Your task to perform on an android device: check google app version Image 0: 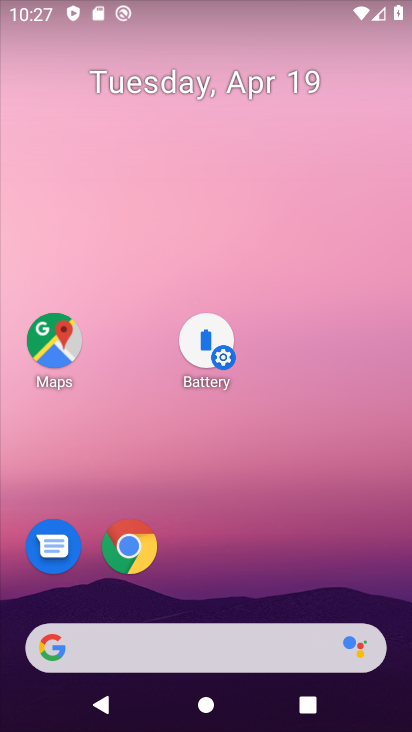
Step 0: drag from (215, 544) to (274, 114)
Your task to perform on an android device: check google app version Image 1: 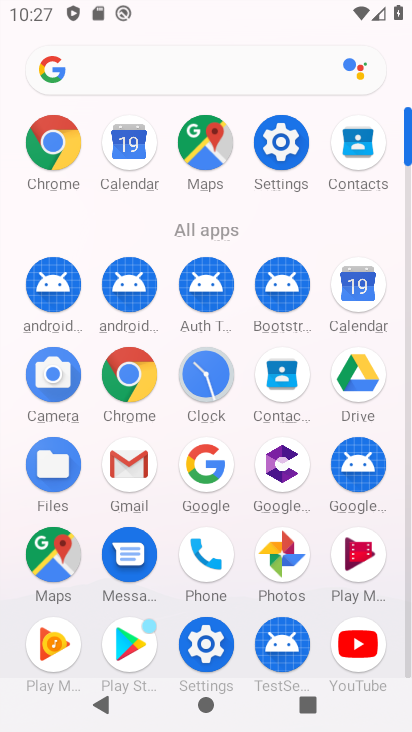
Step 1: click (204, 454)
Your task to perform on an android device: check google app version Image 2: 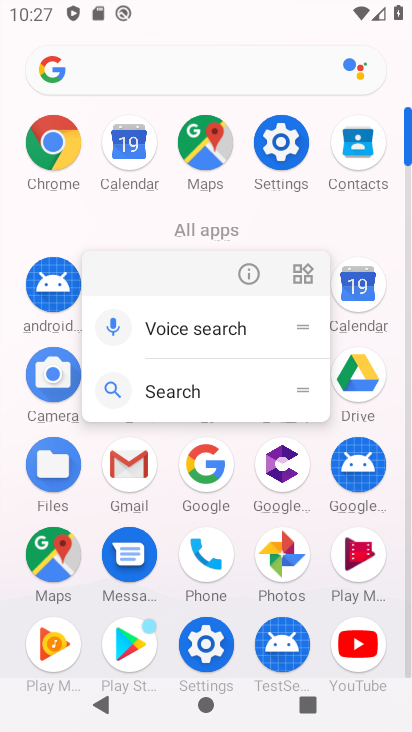
Step 2: click (238, 266)
Your task to perform on an android device: check google app version Image 3: 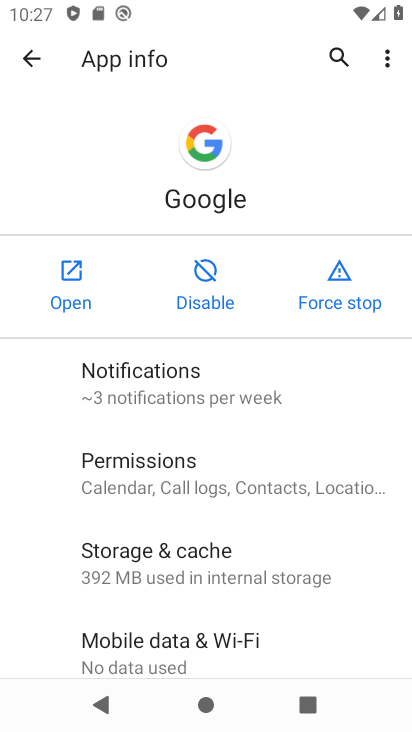
Step 3: drag from (217, 592) to (276, 66)
Your task to perform on an android device: check google app version Image 4: 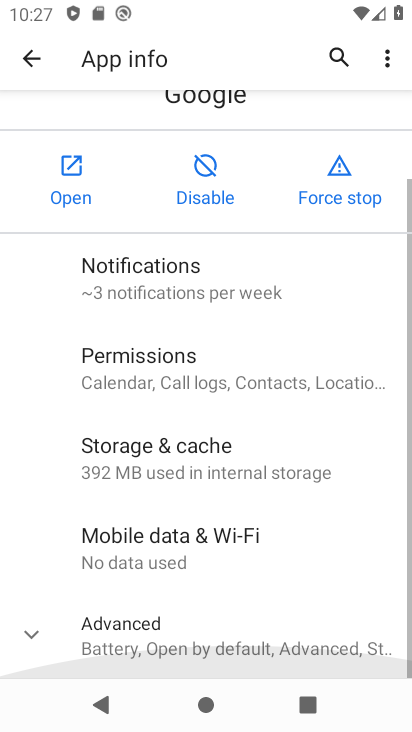
Step 4: drag from (139, 535) to (253, 178)
Your task to perform on an android device: check google app version Image 5: 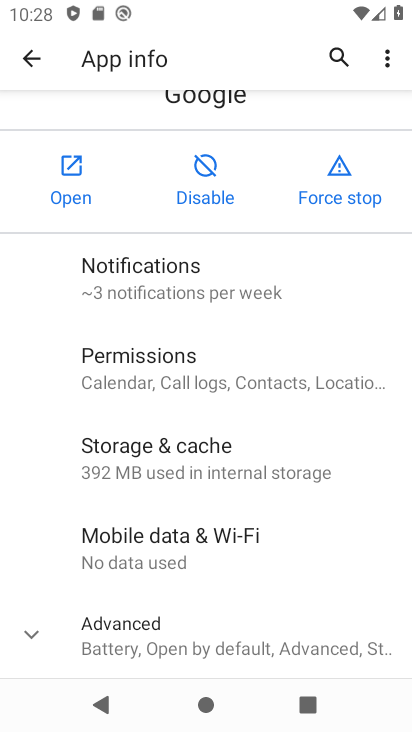
Step 5: drag from (203, 595) to (314, 107)
Your task to perform on an android device: check google app version Image 6: 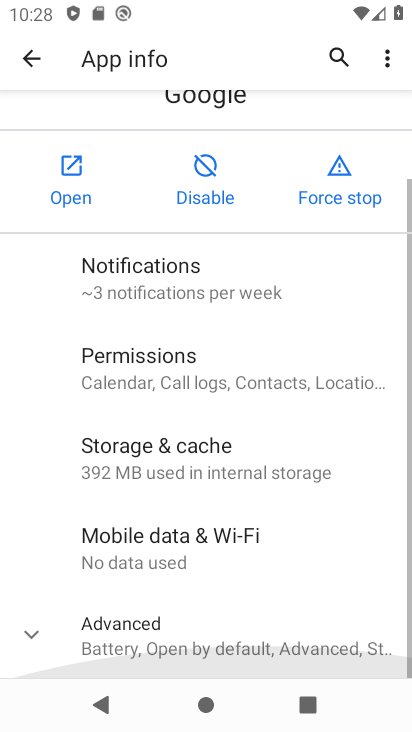
Step 6: drag from (191, 588) to (281, 195)
Your task to perform on an android device: check google app version Image 7: 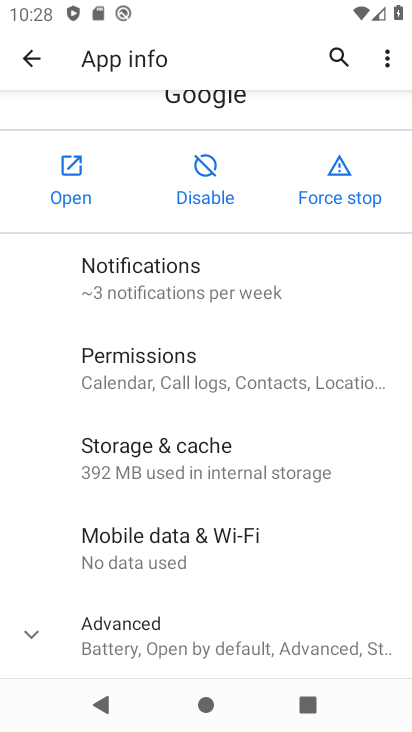
Step 7: drag from (167, 613) to (223, 420)
Your task to perform on an android device: check google app version Image 8: 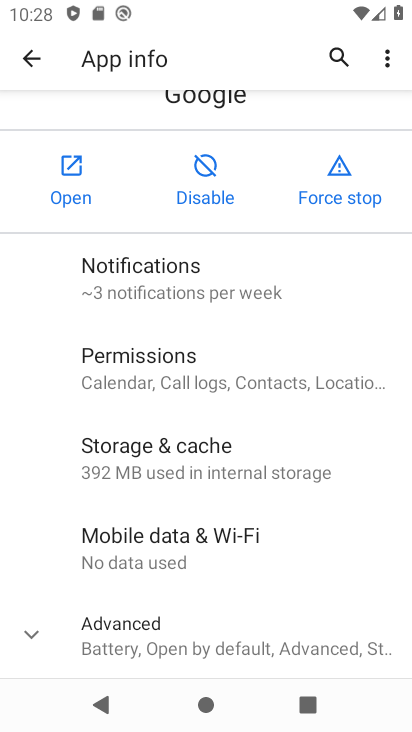
Step 8: drag from (223, 381) to (343, 29)
Your task to perform on an android device: check google app version Image 9: 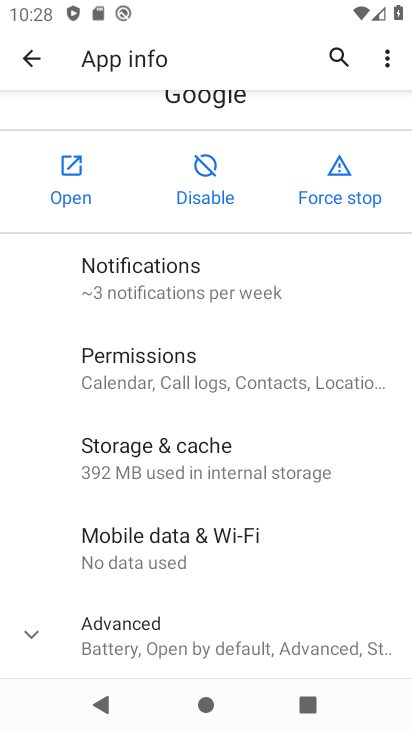
Step 9: drag from (177, 582) to (268, 160)
Your task to perform on an android device: check google app version Image 10: 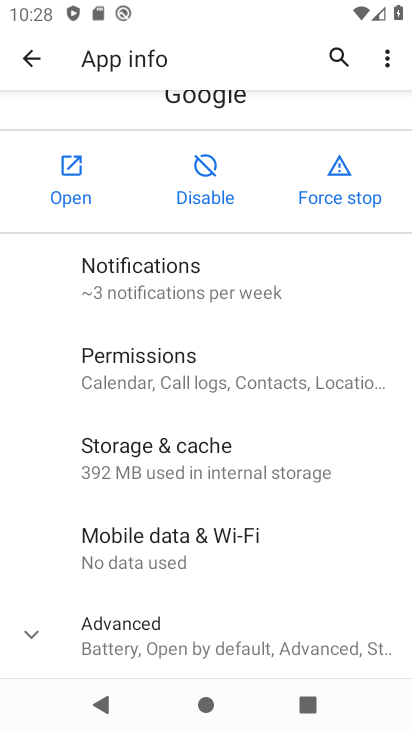
Step 10: click (168, 632)
Your task to perform on an android device: check google app version Image 11: 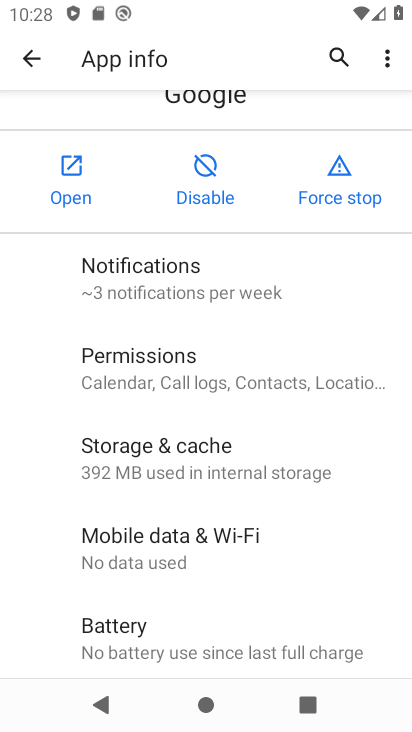
Step 11: task complete